Your task to perform on an android device: delete the emails in spam in the gmail app Image 0: 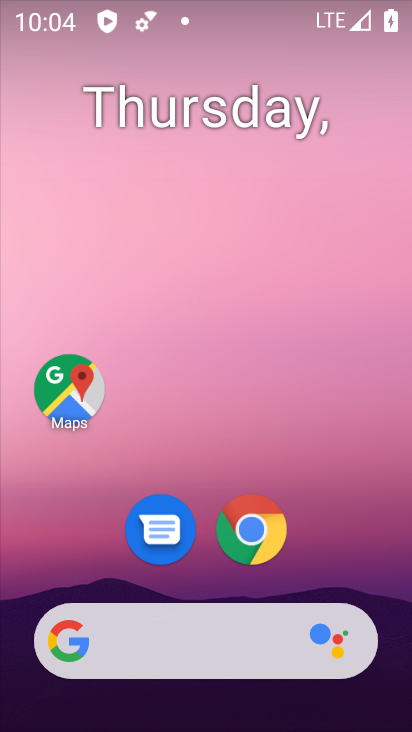
Step 0: drag from (304, 578) to (240, 10)
Your task to perform on an android device: delete the emails in spam in the gmail app Image 1: 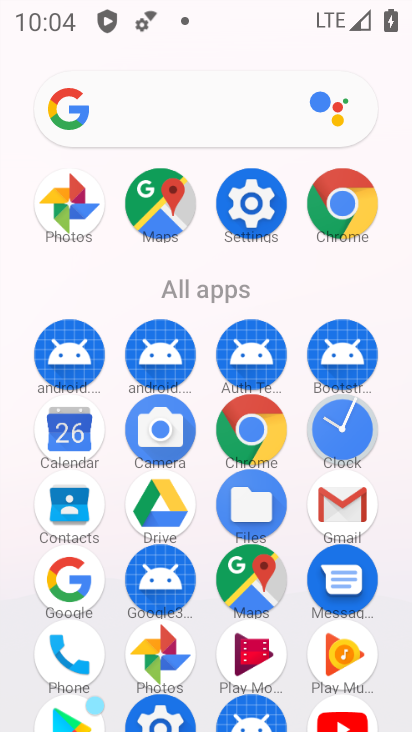
Step 1: click (322, 497)
Your task to perform on an android device: delete the emails in spam in the gmail app Image 2: 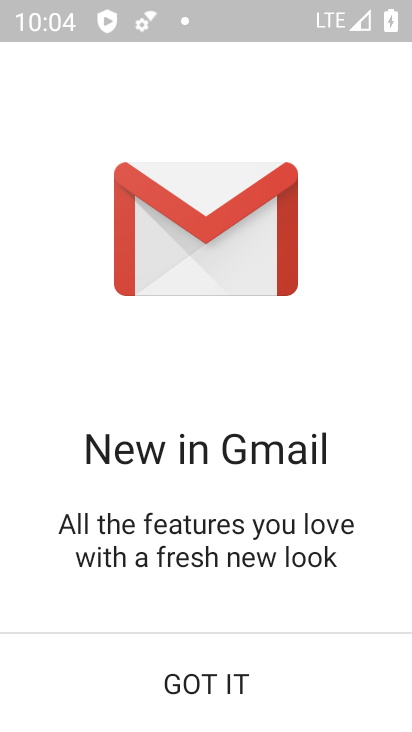
Step 2: click (189, 687)
Your task to perform on an android device: delete the emails in spam in the gmail app Image 3: 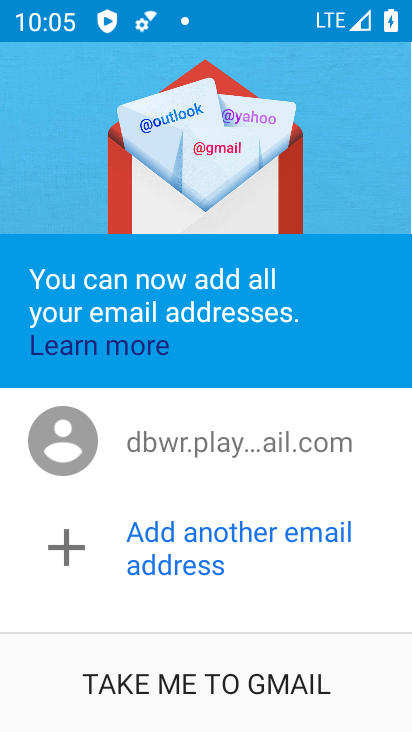
Step 3: click (226, 672)
Your task to perform on an android device: delete the emails in spam in the gmail app Image 4: 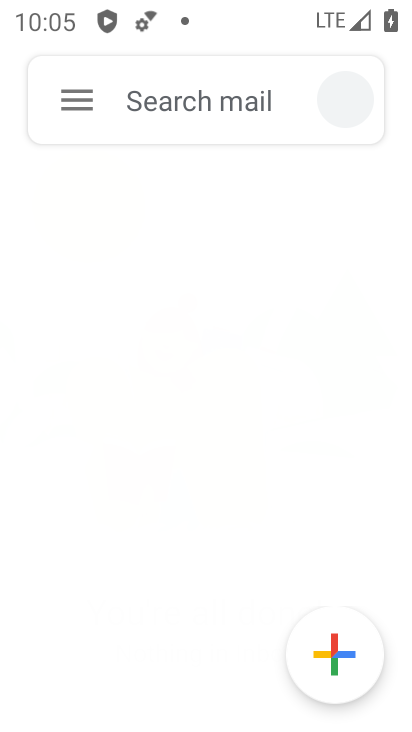
Step 4: click (69, 91)
Your task to perform on an android device: delete the emails in spam in the gmail app Image 5: 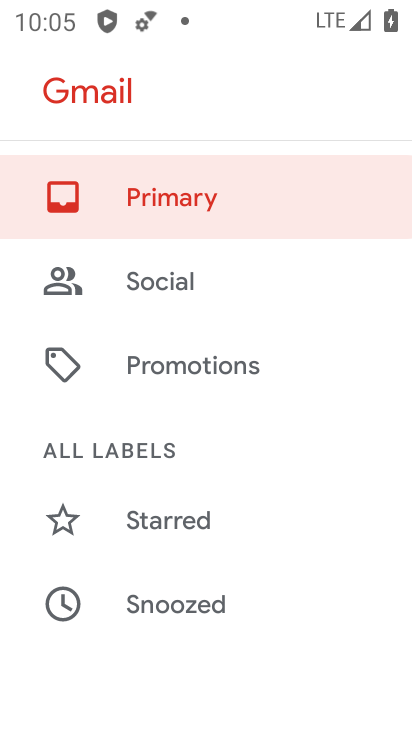
Step 5: drag from (211, 532) to (233, 228)
Your task to perform on an android device: delete the emails in spam in the gmail app Image 6: 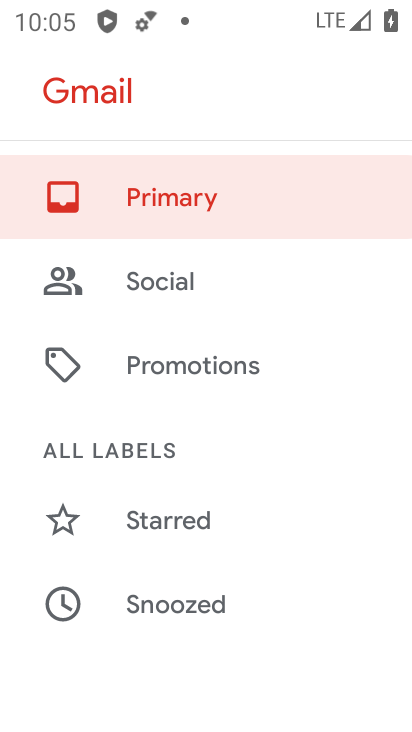
Step 6: drag from (222, 606) to (231, 186)
Your task to perform on an android device: delete the emails in spam in the gmail app Image 7: 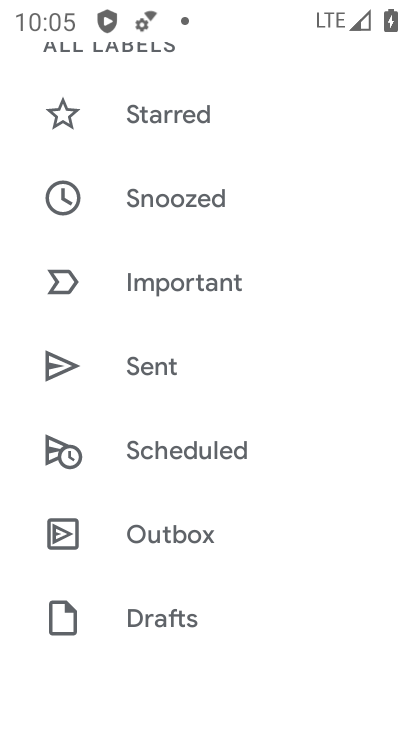
Step 7: drag from (206, 572) to (274, 158)
Your task to perform on an android device: delete the emails in spam in the gmail app Image 8: 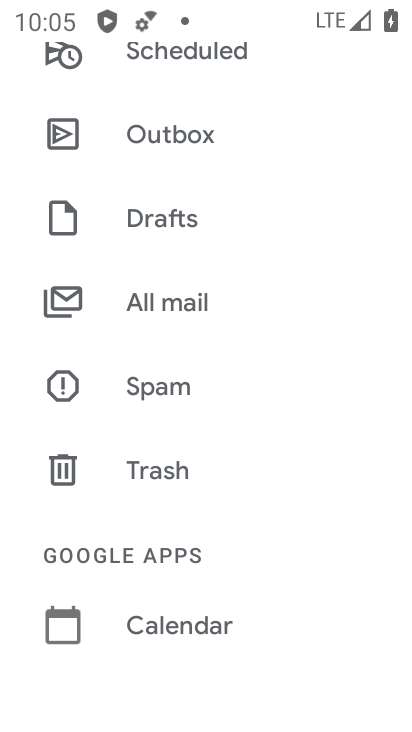
Step 8: click (169, 388)
Your task to perform on an android device: delete the emails in spam in the gmail app Image 9: 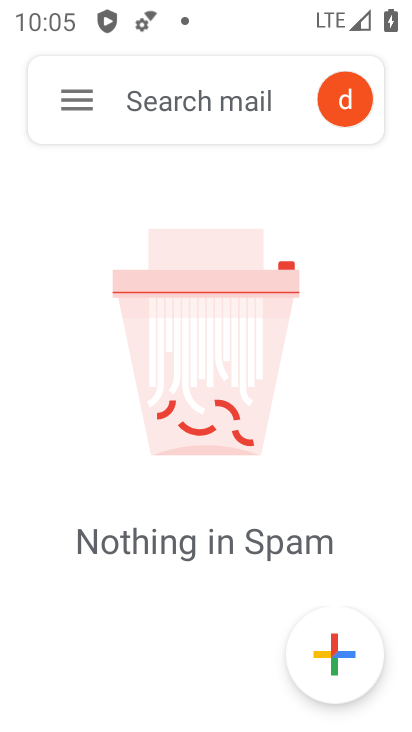
Step 9: task complete